Your task to perform on an android device: When is my next appointment? Image 0: 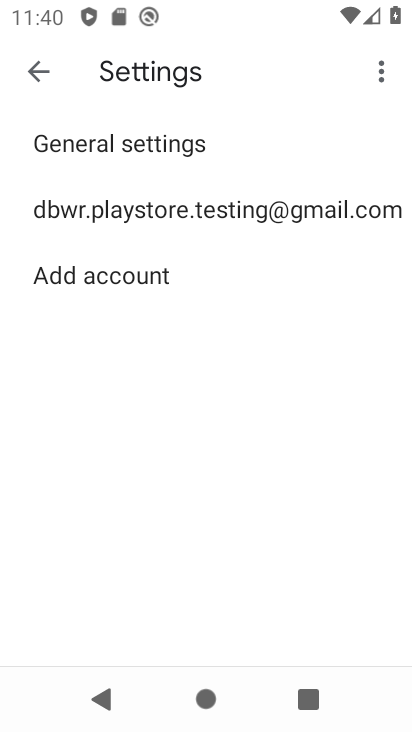
Step 0: press home button
Your task to perform on an android device: When is my next appointment? Image 1: 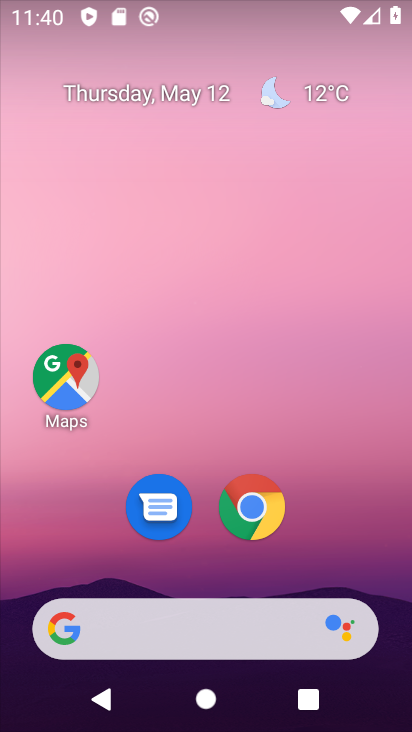
Step 1: drag from (353, 564) to (333, 122)
Your task to perform on an android device: When is my next appointment? Image 2: 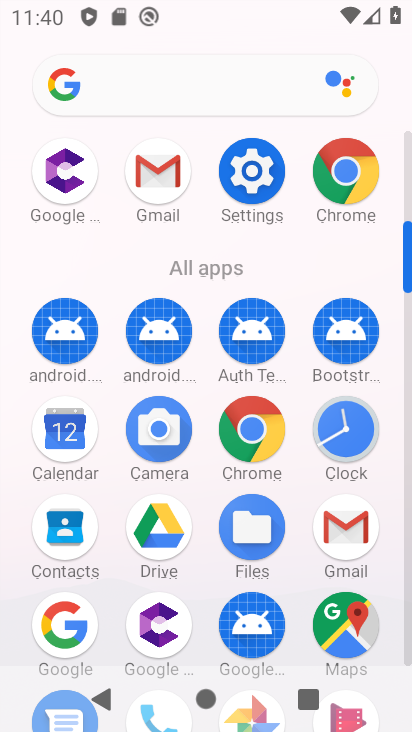
Step 2: click (59, 453)
Your task to perform on an android device: When is my next appointment? Image 3: 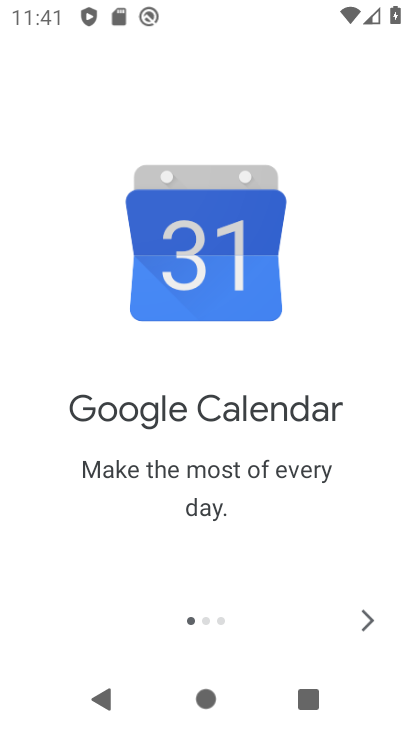
Step 3: click (356, 627)
Your task to perform on an android device: When is my next appointment? Image 4: 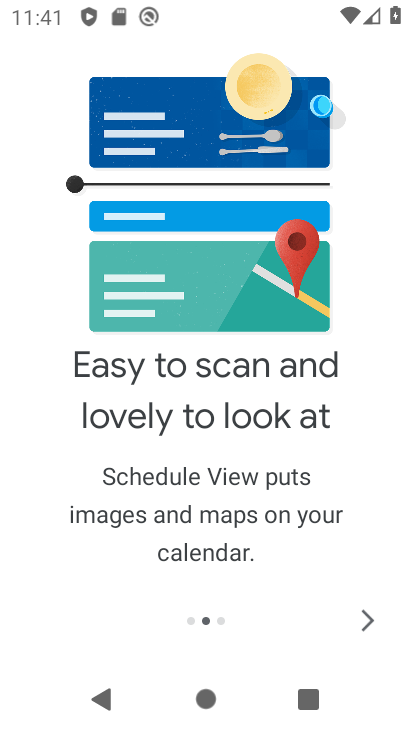
Step 4: click (356, 627)
Your task to perform on an android device: When is my next appointment? Image 5: 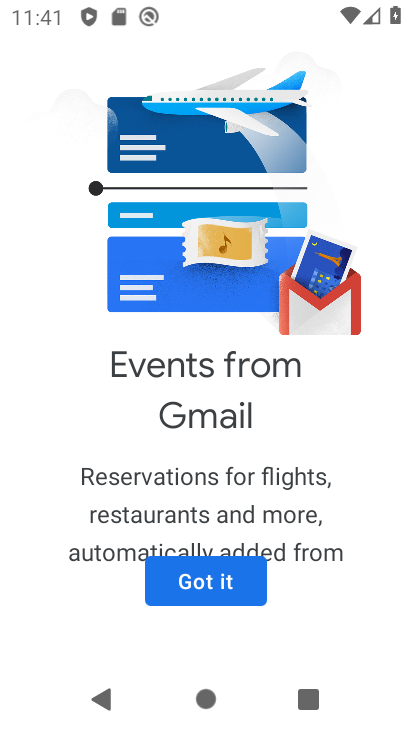
Step 5: click (220, 586)
Your task to perform on an android device: When is my next appointment? Image 6: 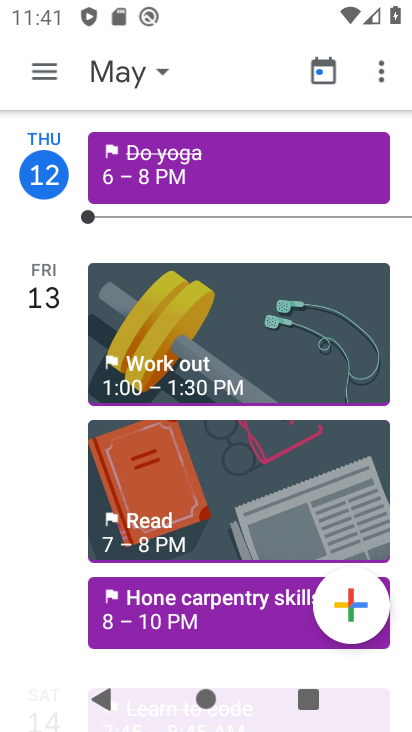
Step 6: click (136, 76)
Your task to perform on an android device: When is my next appointment? Image 7: 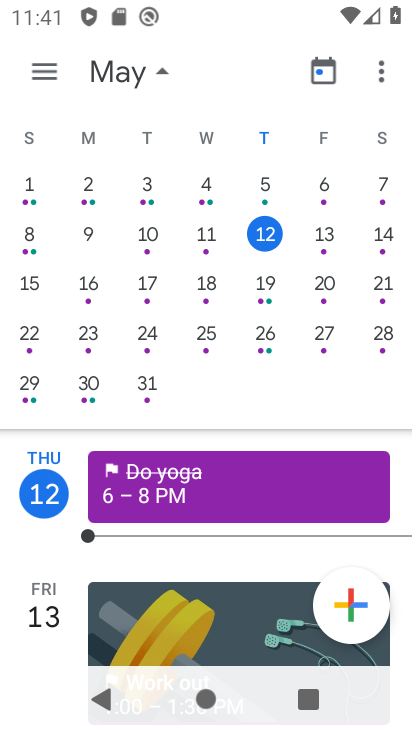
Step 7: click (326, 245)
Your task to perform on an android device: When is my next appointment? Image 8: 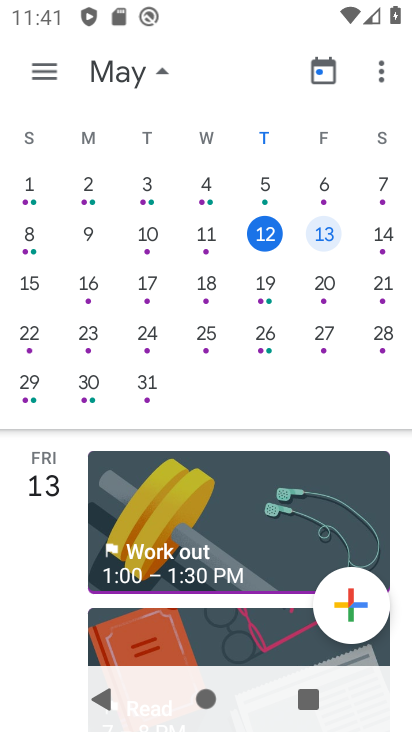
Step 8: task complete